Your task to perform on an android device: Is it going to rain today? Image 0: 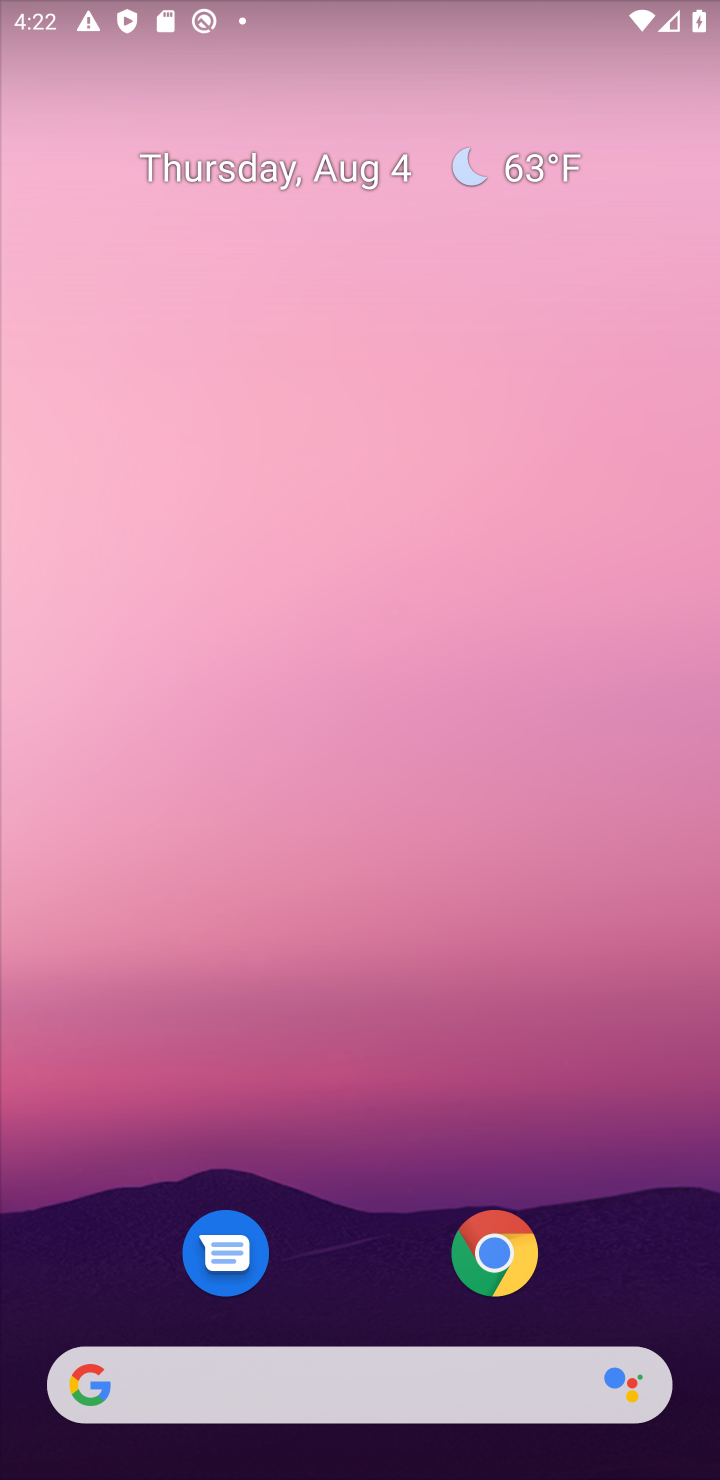
Step 0: drag from (343, 1143) to (309, 310)
Your task to perform on an android device: Is it going to rain today? Image 1: 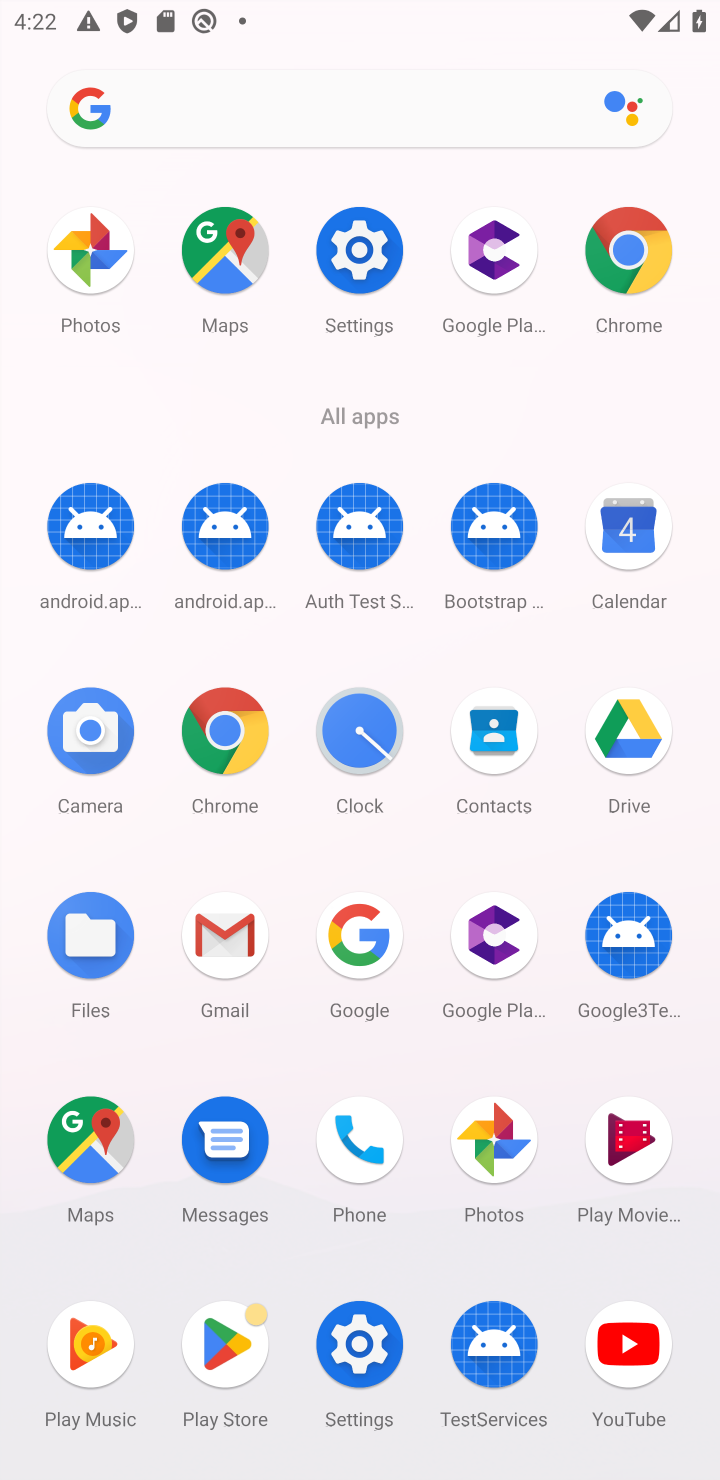
Step 1: click (342, 947)
Your task to perform on an android device: Is it going to rain today? Image 2: 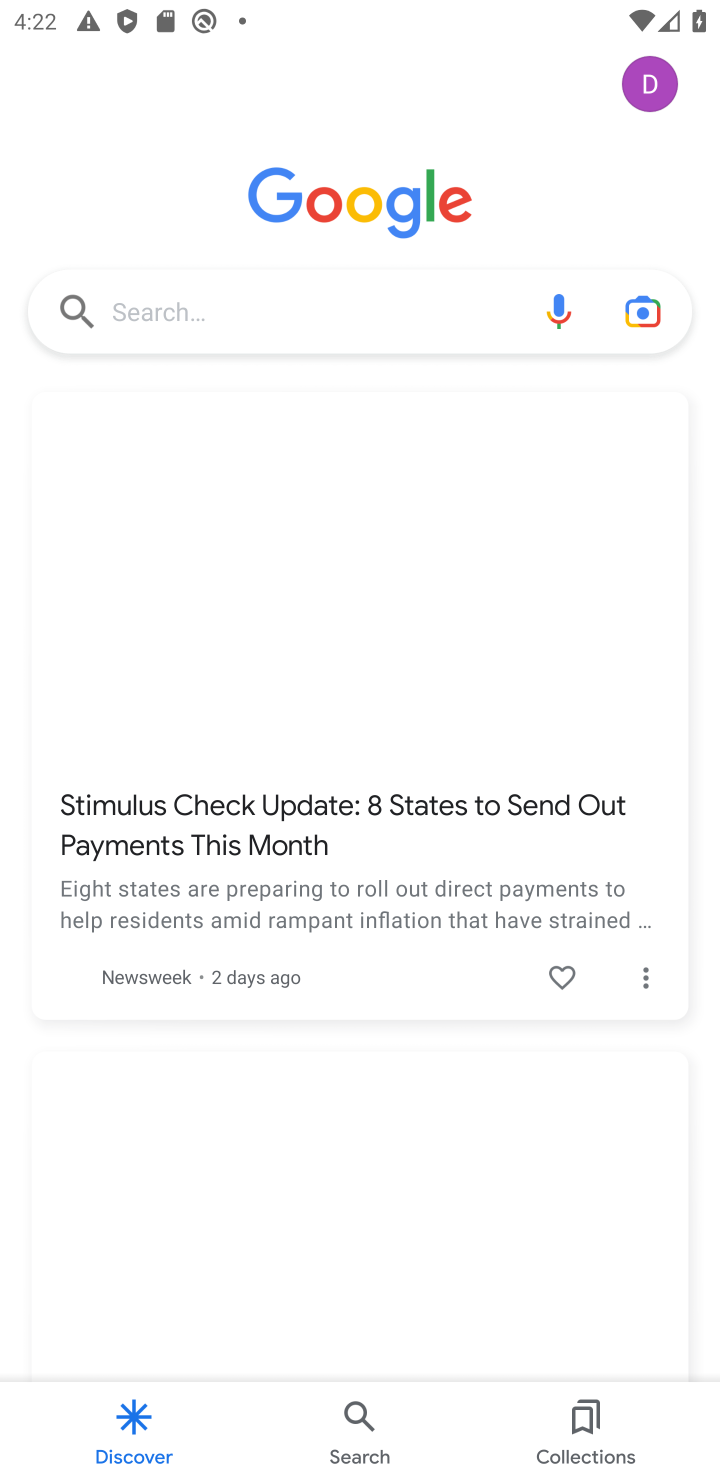
Step 2: click (310, 295)
Your task to perform on an android device: Is it going to rain today? Image 3: 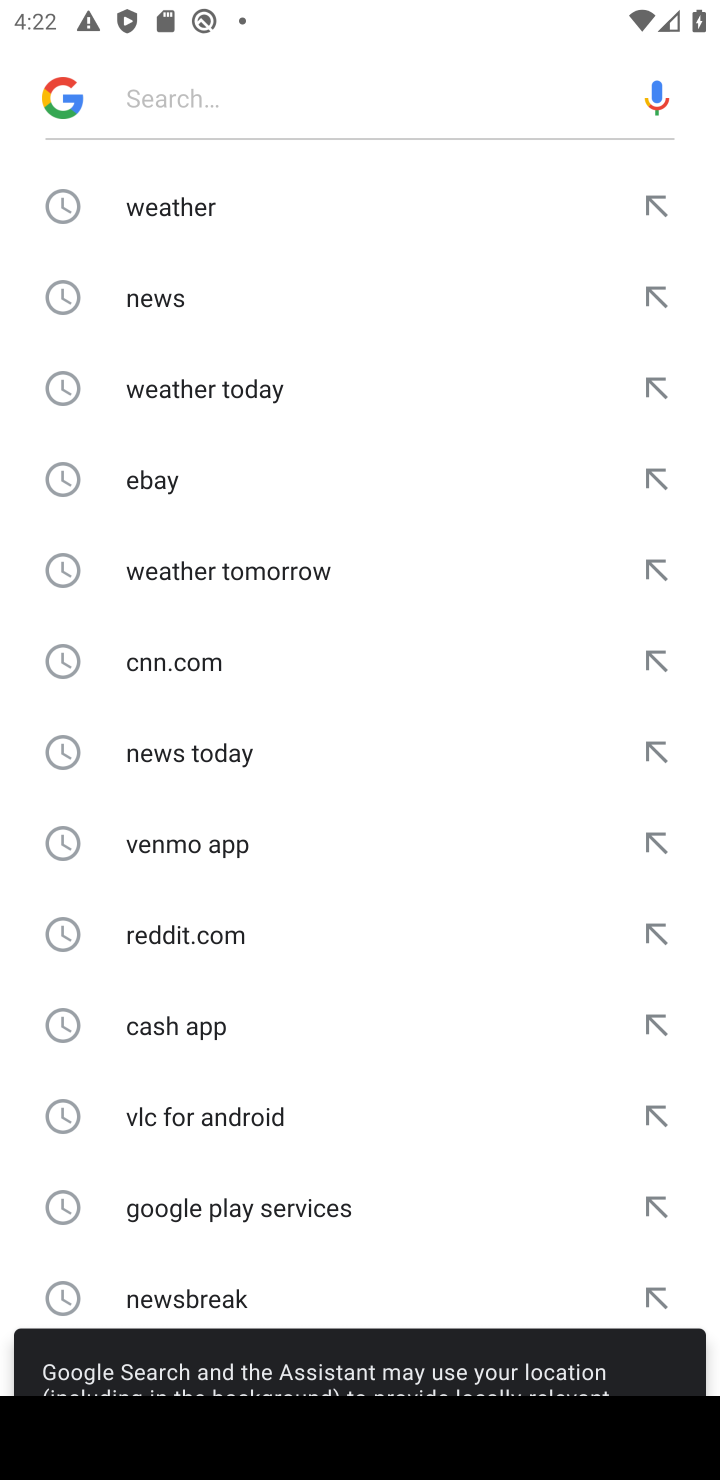
Step 3: drag from (255, 1149) to (303, 557)
Your task to perform on an android device: Is it going to rain today? Image 4: 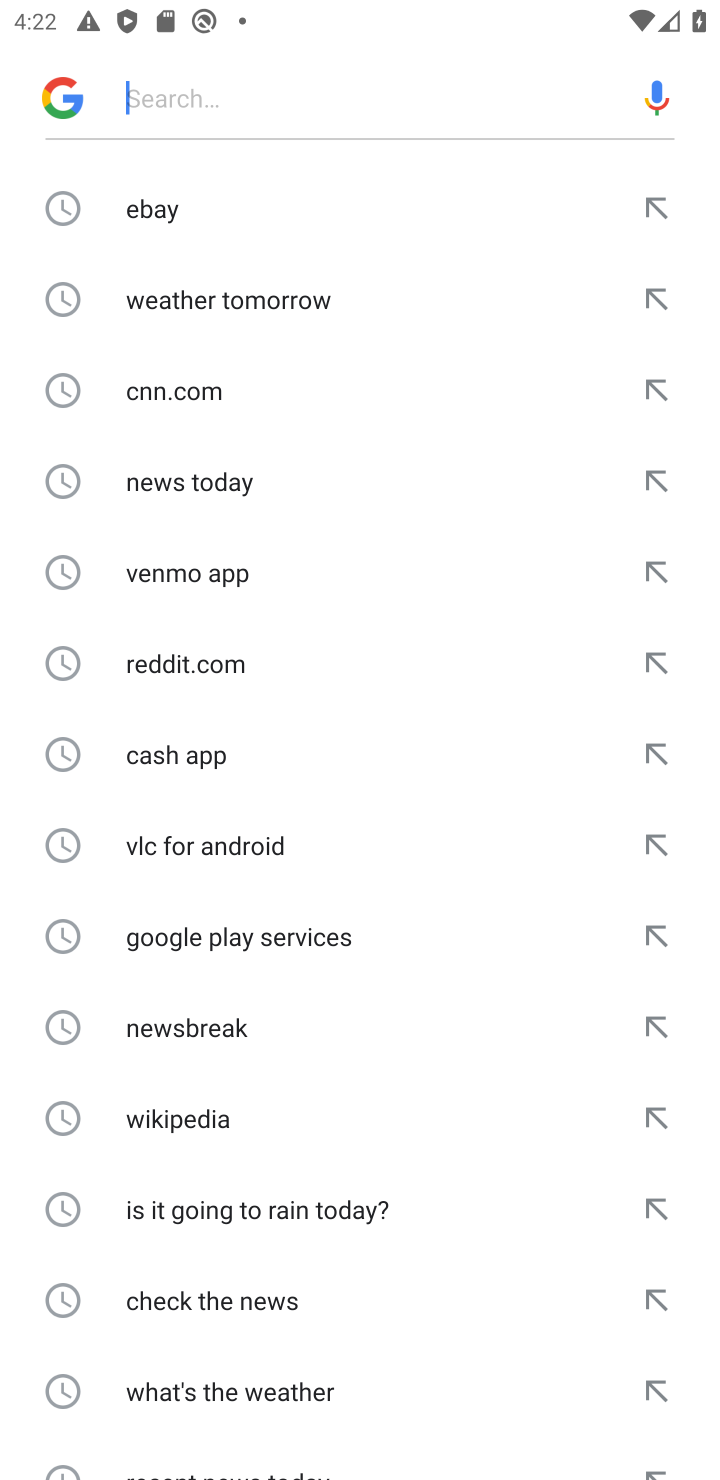
Step 4: click (252, 1204)
Your task to perform on an android device: Is it going to rain today? Image 5: 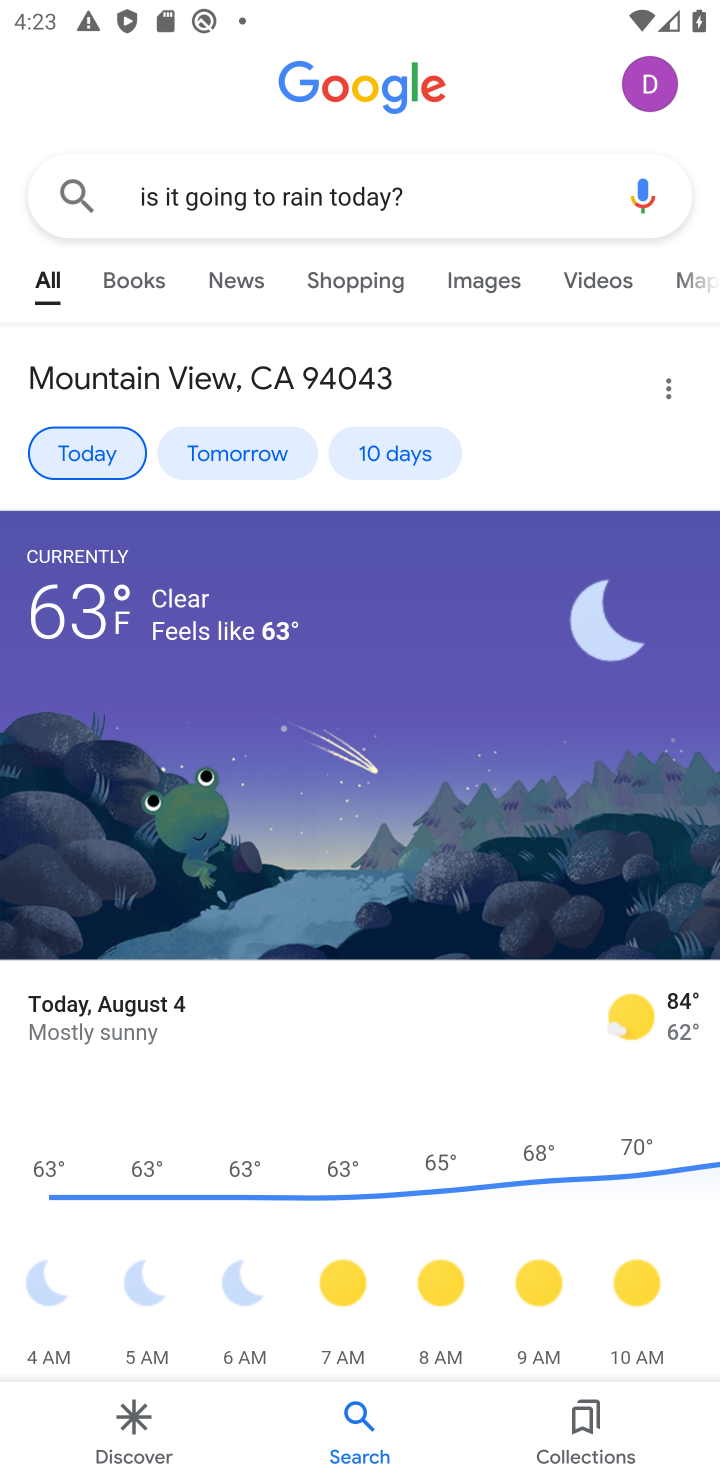
Step 5: task complete